Your task to perform on an android device: Open the calendar and show me this week's events? Image 0: 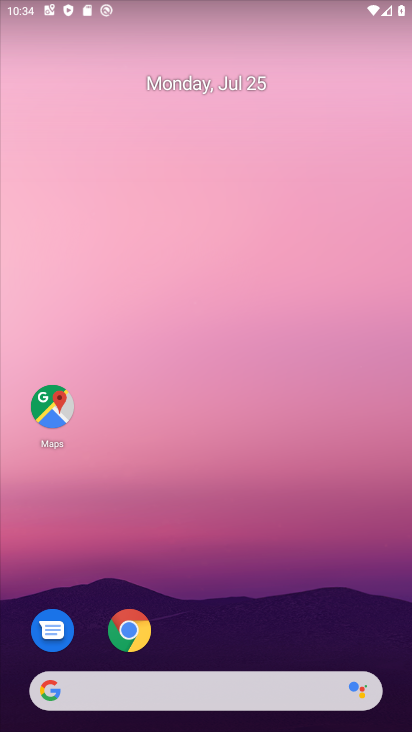
Step 0: press home button
Your task to perform on an android device: Open the calendar and show me this week's events? Image 1: 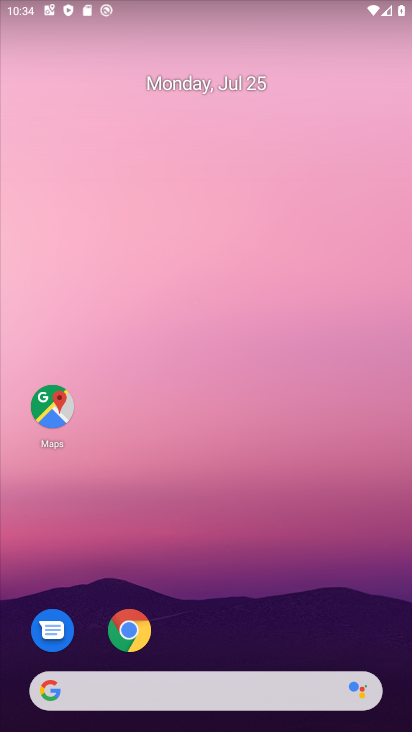
Step 1: drag from (348, 612) to (350, 127)
Your task to perform on an android device: Open the calendar and show me this week's events? Image 2: 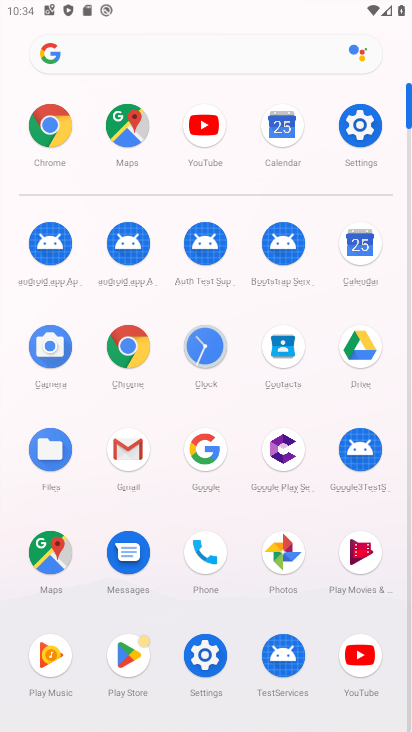
Step 2: click (356, 251)
Your task to perform on an android device: Open the calendar and show me this week's events? Image 3: 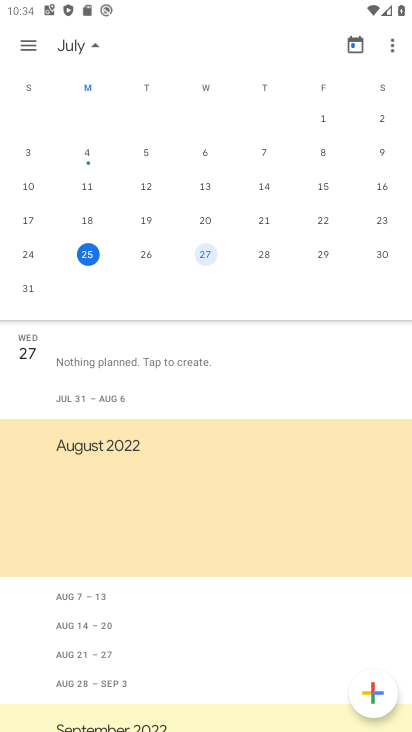
Step 3: click (90, 257)
Your task to perform on an android device: Open the calendar and show me this week's events? Image 4: 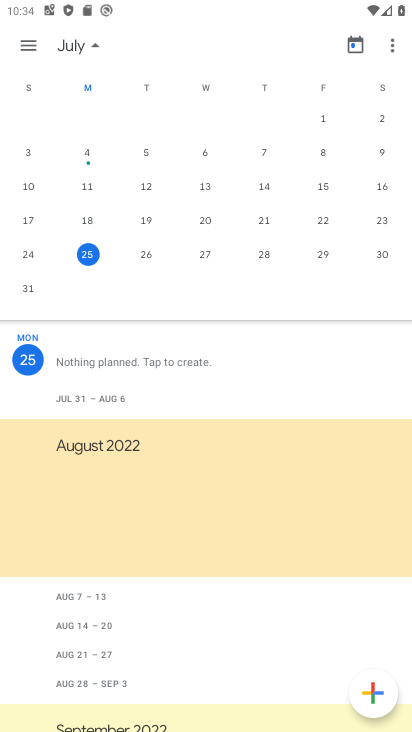
Step 4: task complete